Your task to perform on an android device: Go to calendar. Show me events next week Image 0: 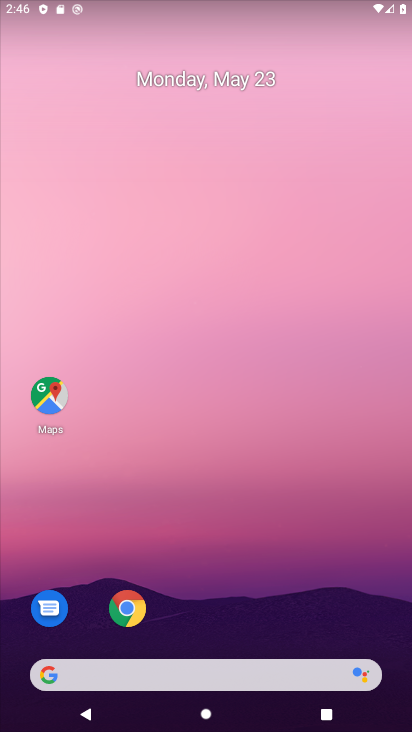
Step 0: drag from (263, 528) to (261, 224)
Your task to perform on an android device: Go to calendar. Show me events next week Image 1: 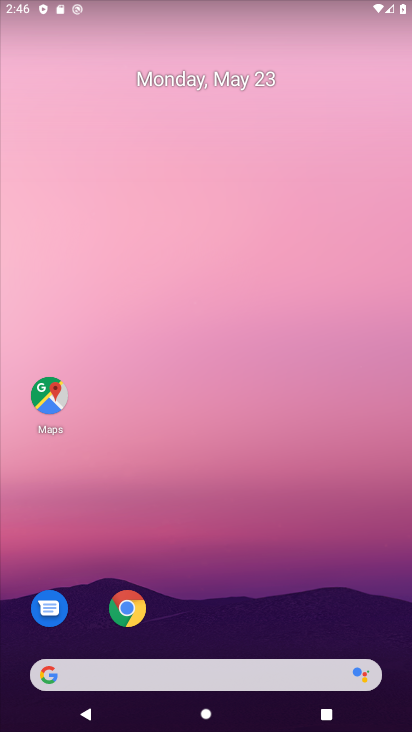
Step 1: drag from (222, 562) to (272, 328)
Your task to perform on an android device: Go to calendar. Show me events next week Image 2: 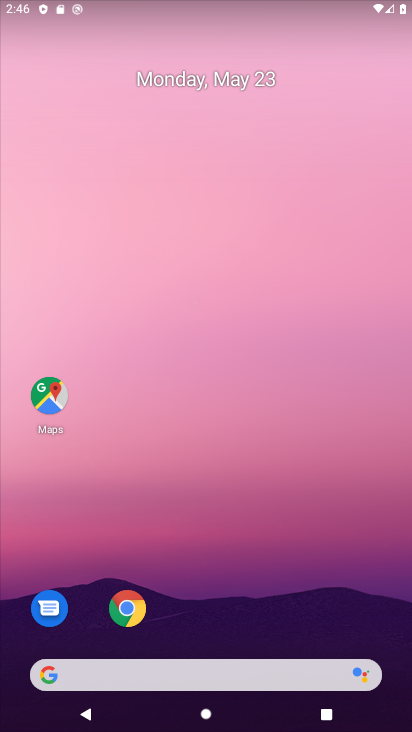
Step 2: drag from (243, 601) to (324, 301)
Your task to perform on an android device: Go to calendar. Show me events next week Image 3: 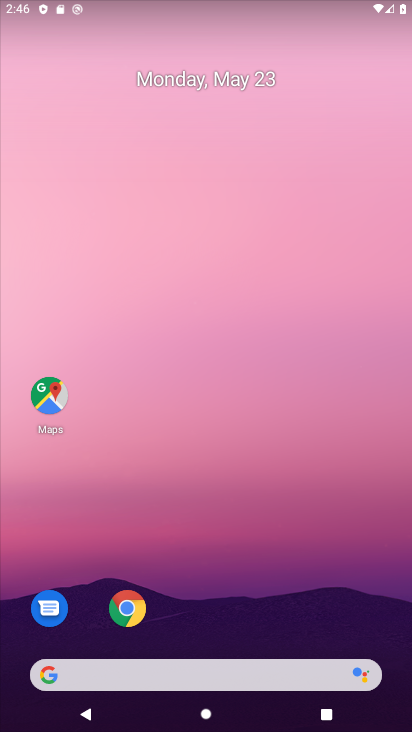
Step 3: drag from (296, 511) to (320, 171)
Your task to perform on an android device: Go to calendar. Show me events next week Image 4: 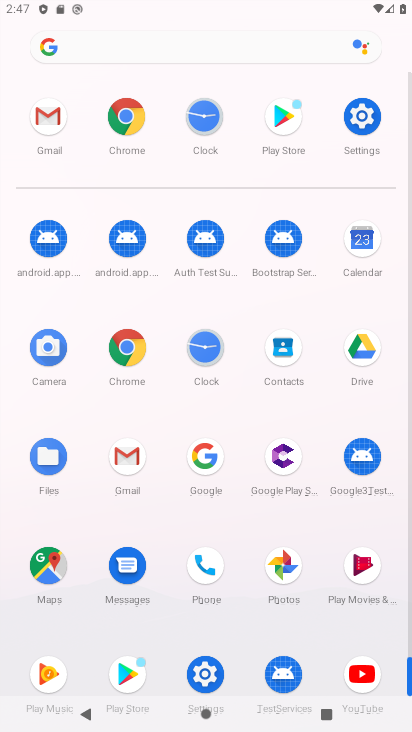
Step 4: drag from (231, 606) to (268, 306)
Your task to perform on an android device: Go to calendar. Show me events next week Image 5: 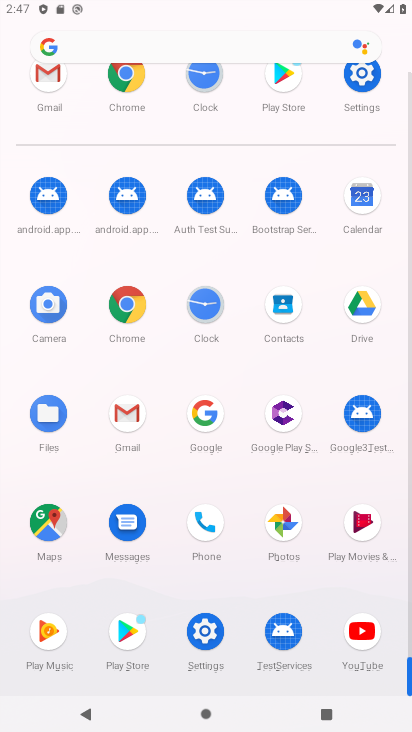
Step 5: click (372, 194)
Your task to perform on an android device: Go to calendar. Show me events next week Image 6: 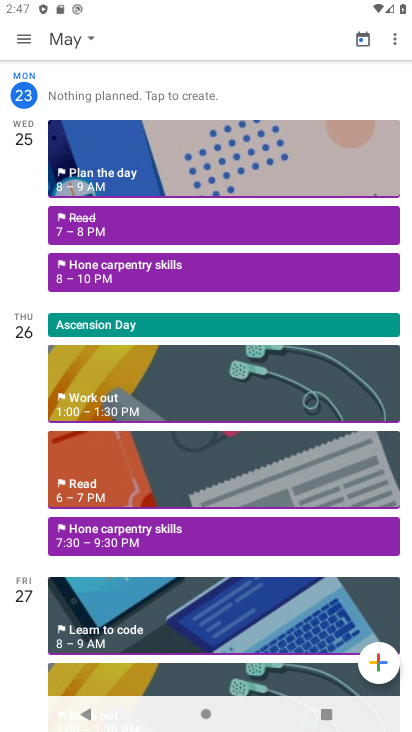
Step 6: task complete